Your task to perform on an android device: Find coffee shops on Maps Image 0: 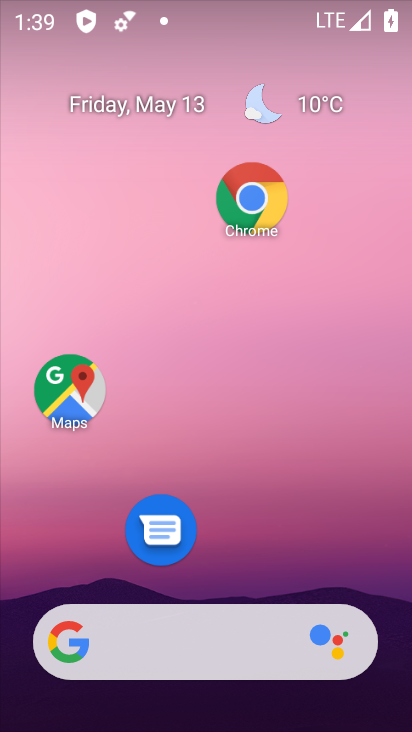
Step 0: click (54, 400)
Your task to perform on an android device: Find coffee shops on Maps Image 1: 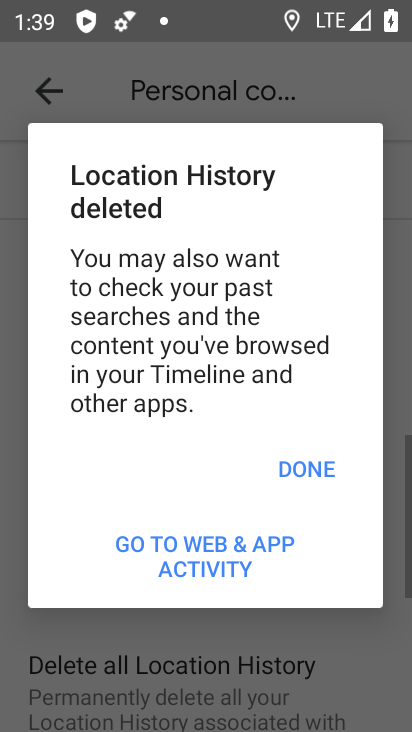
Step 1: click (292, 464)
Your task to perform on an android device: Find coffee shops on Maps Image 2: 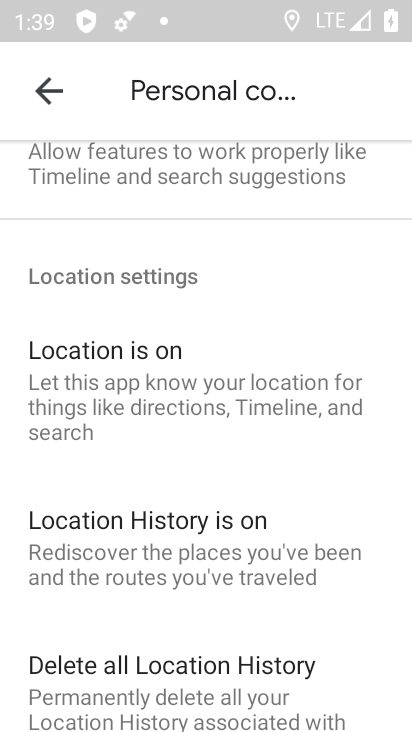
Step 2: click (48, 80)
Your task to perform on an android device: Find coffee shops on Maps Image 3: 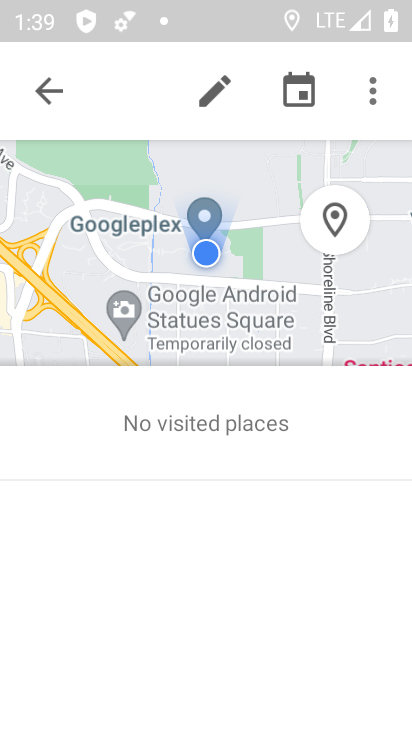
Step 3: click (40, 93)
Your task to perform on an android device: Find coffee shops on Maps Image 4: 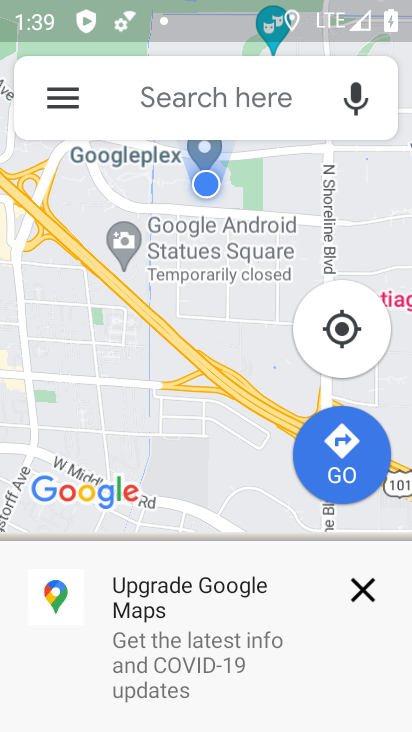
Step 4: click (144, 71)
Your task to perform on an android device: Find coffee shops on Maps Image 5: 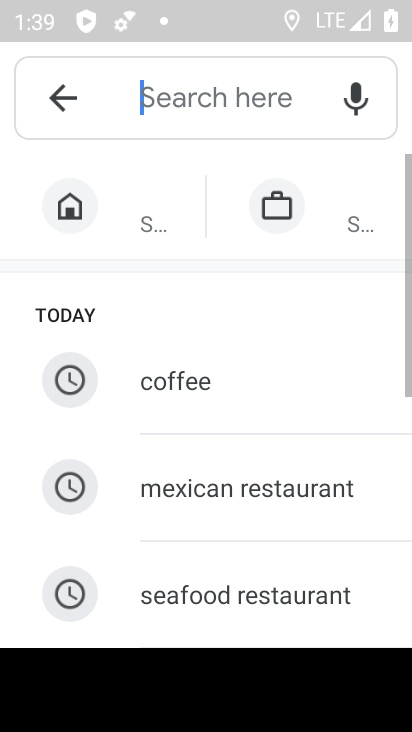
Step 5: click (190, 371)
Your task to perform on an android device: Find coffee shops on Maps Image 6: 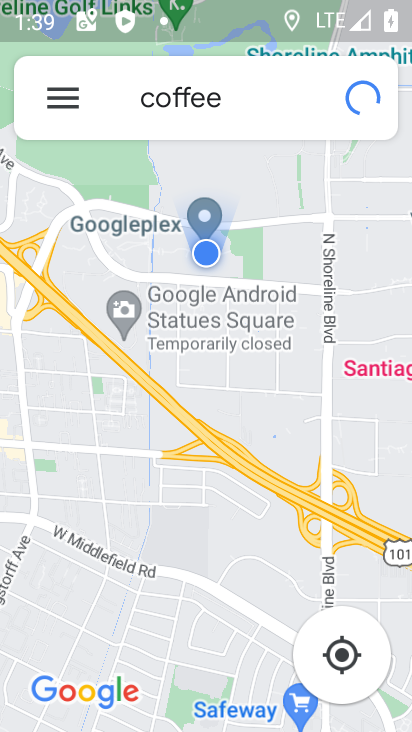
Step 6: task complete